Your task to perform on an android device: Open Amazon Image 0: 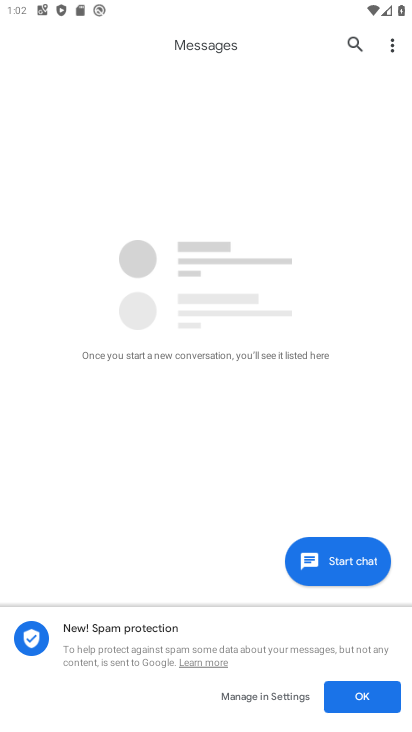
Step 0: press home button
Your task to perform on an android device: Open Amazon Image 1: 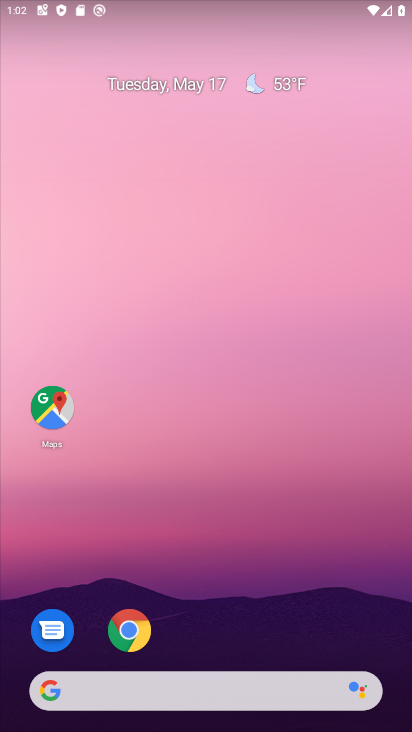
Step 1: drag from (242, 683) to (308, 217)
Your task to perform on an android device: Open Amazon Image 2: 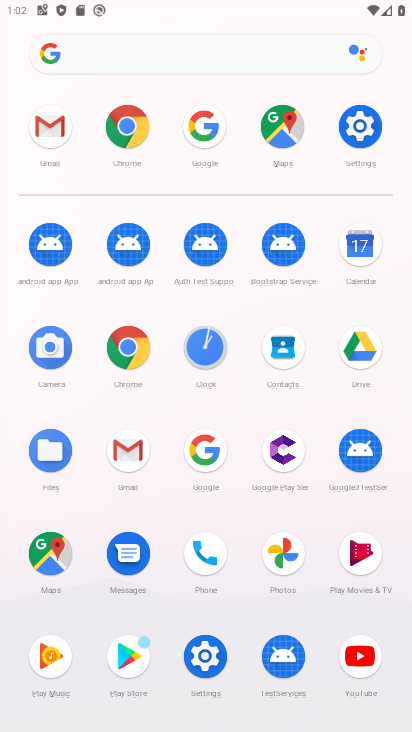
Step 2: click (129, 363)
Your task to perform on an android device: Open Amazon Image 3: 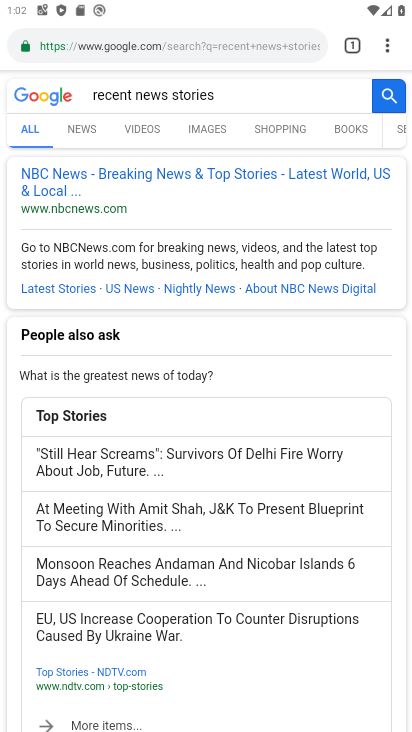
Step 3: click (292, 52)
Your task to perform on an android device: Open Amazon Image 4: 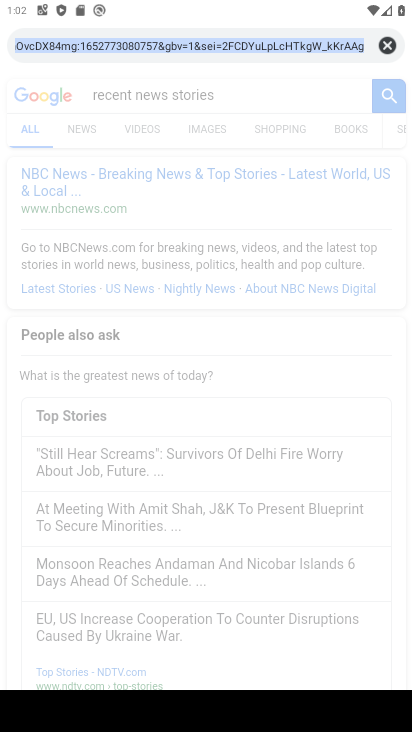
Step 4: type "amazon"
Your task to perform on an android device: Open Amazon Image 5: 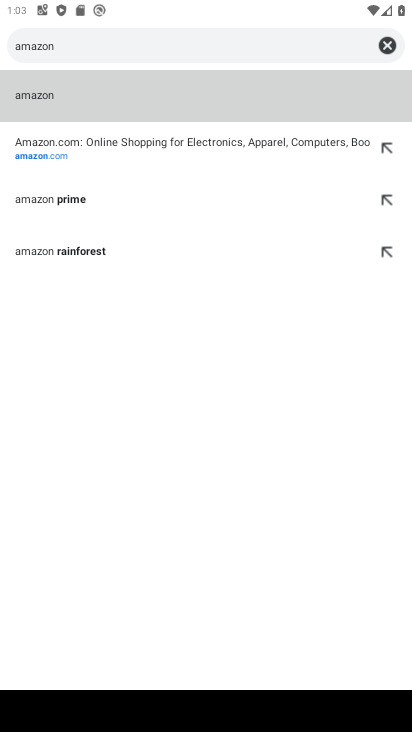
Step 5: click (227, 149)
Your task to perform on an android device: Open Amazon Image 6: 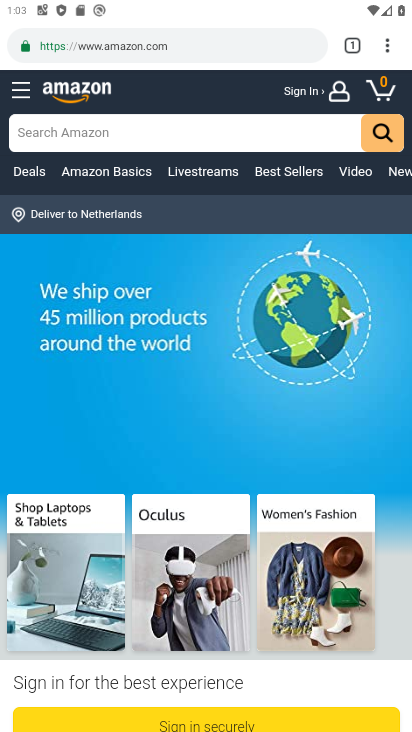
Step 6: task complete